Your task to perform on an android device: Open Android settings Image 0: 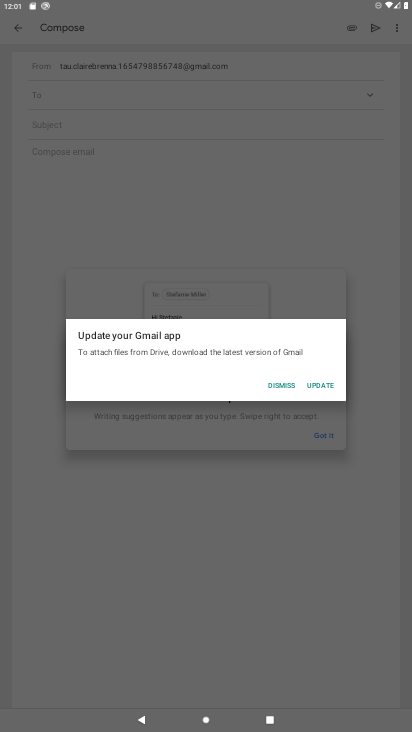
Step 0: press home button
Your task to perform on an android device: Open Android settings Image 1: 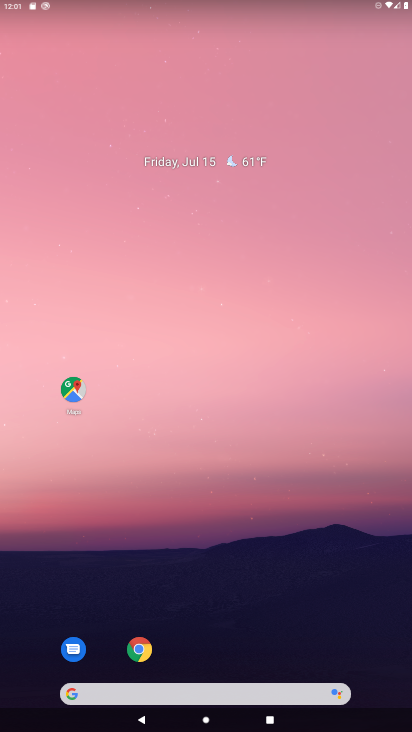
Step 1: drag from (267, 661) to (226, 5)
Your task to perform on an android device: Open Android settings Image 2: 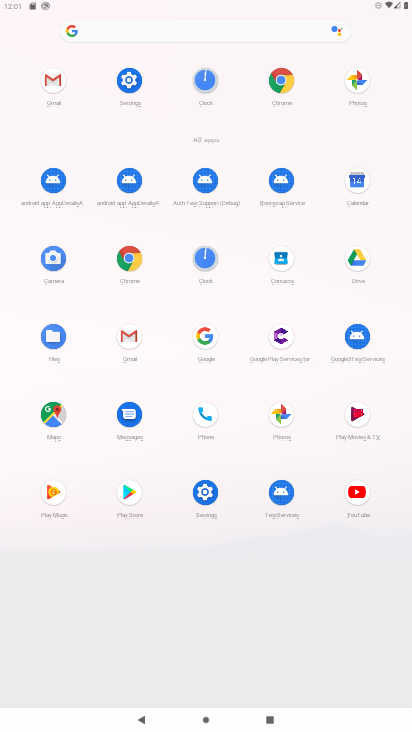
Step 2: click (134, 105)
Your task to perform on an android device: Open Android settings Image 3: 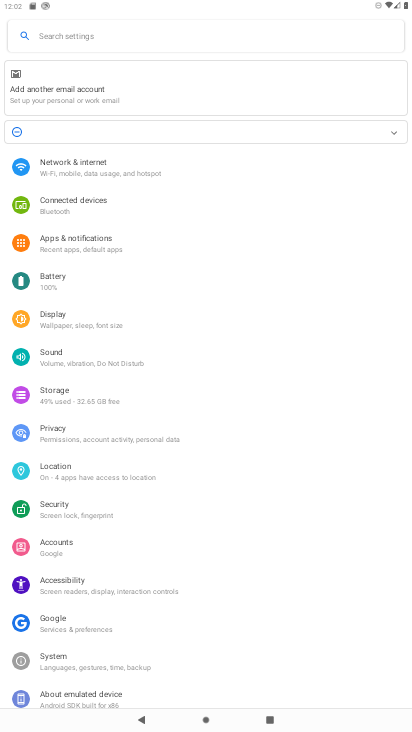
Step 3: task complete